Your task to perform on an android device: Search for sushi restaurants on Maps Image 0: 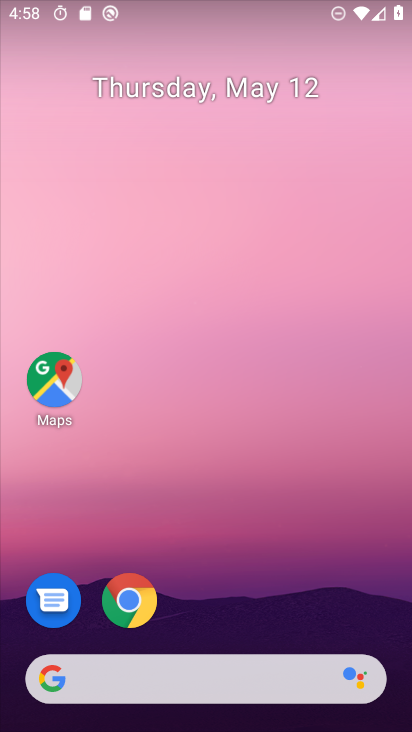
Step 0: drag from (209, 615) to (254, 204)
Your task to perform on an android device: Search for sushi restaurants on Maps Image 1: 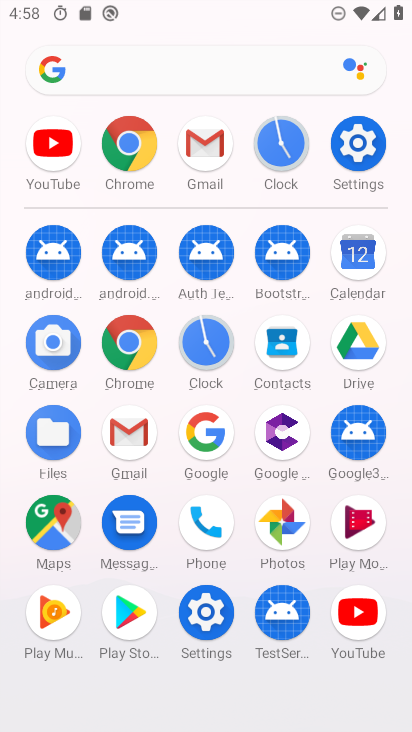
Step 1: click (59, 513)
Your task to perform on an android device: Search for sushi restaurants on Maps Image 2: 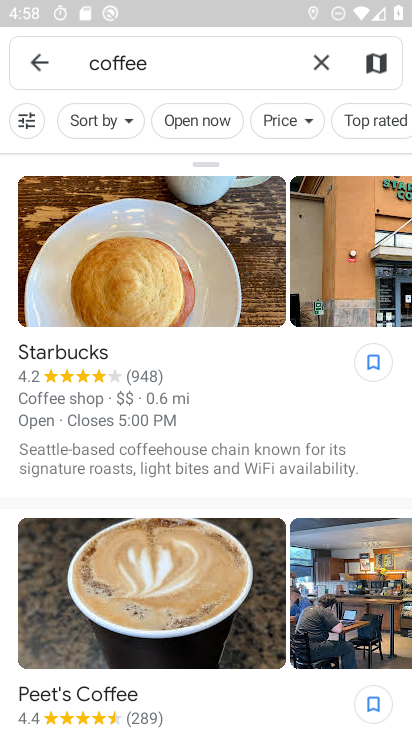
Step 2: click (319, 69)
Your task to perform on an android device: Search for sushi restaurants on Maps Image 3: 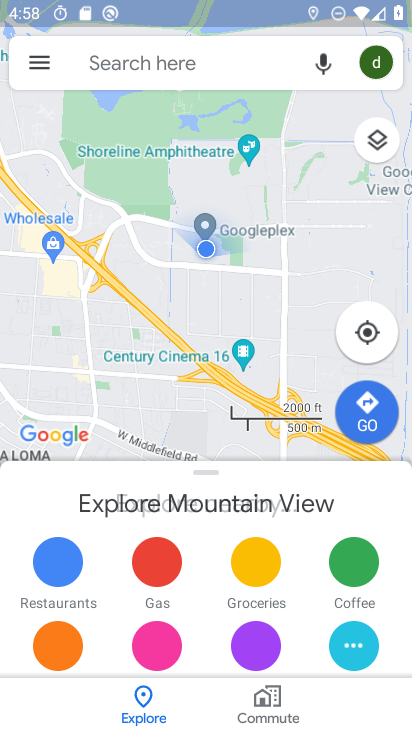
Step 3: click (212, 62)
Your task to perform on an android device: Search for sushi restaurants on Maps Image 4: 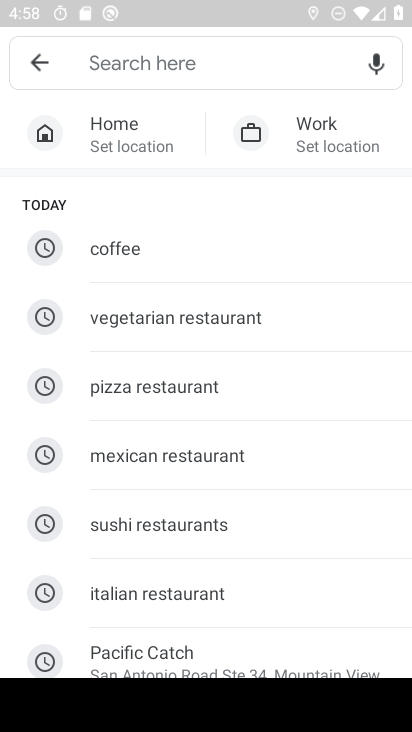
Step 4: click (162, 536)
Your task to perform on an android device: Search for sushi restaurants on Maps Image 5: 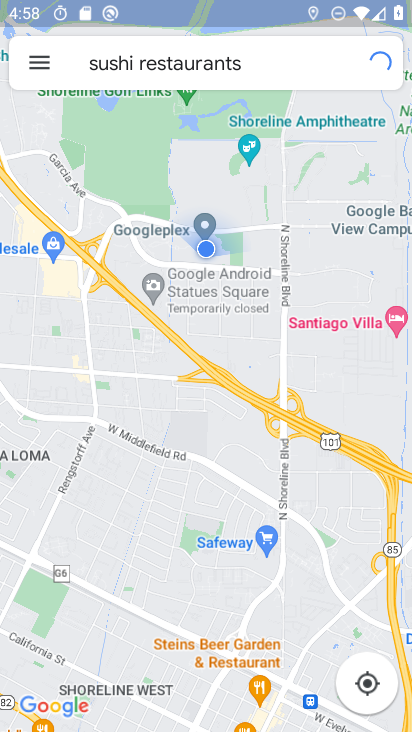
Step 5: task complete